Your task to perform on an android device: check out phone information Image 0: 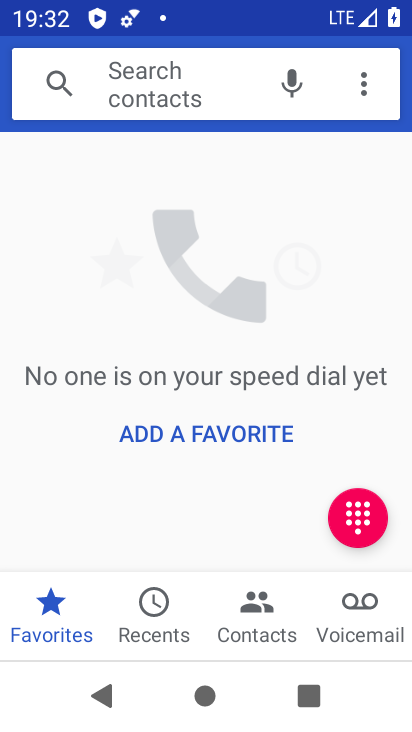
Step 0: press home button
Your task to perform on an android device: check out phone information Image 1: 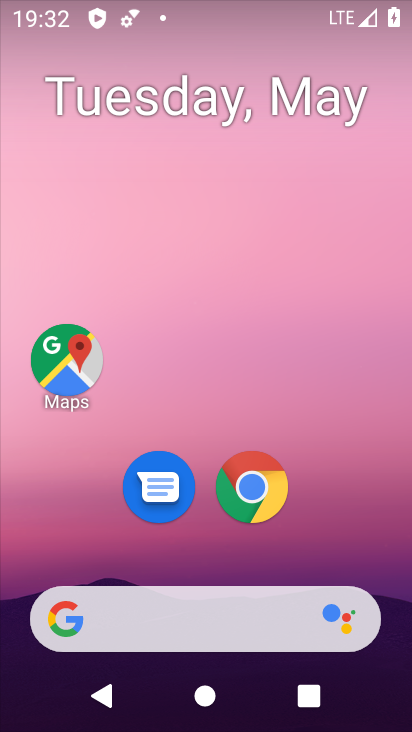
Step 1: drag from (341, 523) to (256, 113)
Your task to perform on an android device: check out phone information Image 2: 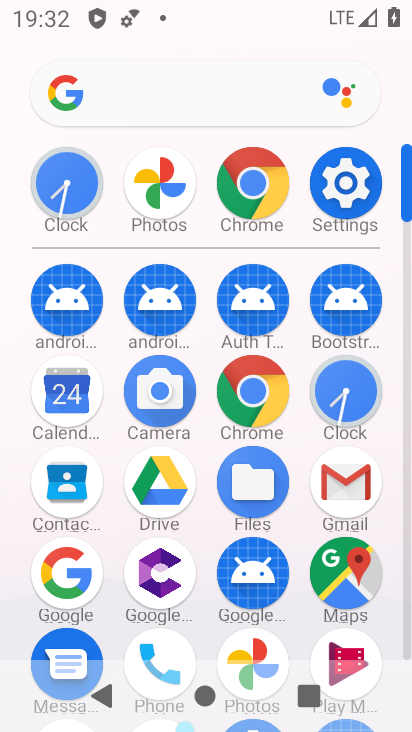
Step 2: click (338, 181)
Your task to perform on an android device: check out phone information Image 3: 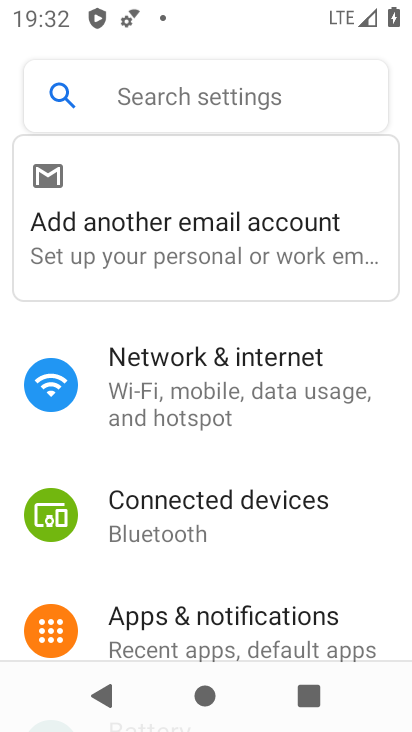
Step 3: drag from (265, 569) to (224, 155)
Your task to perform on an android device: check out phone information Image 4: 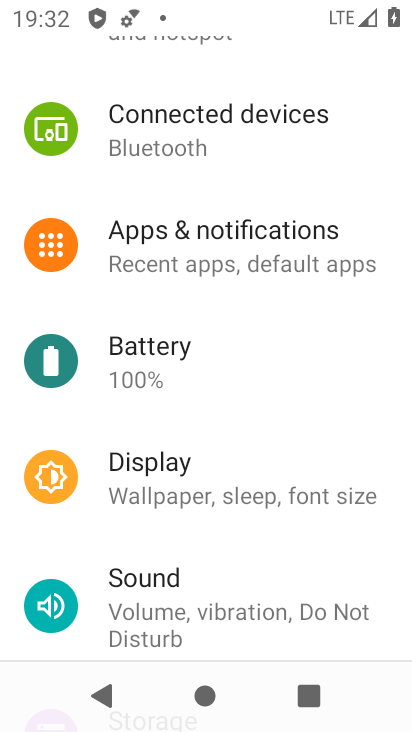
Step 4: drag from (229, 561) to (160, 215)
Your task to perform on an android device: check out phone information Image 5: 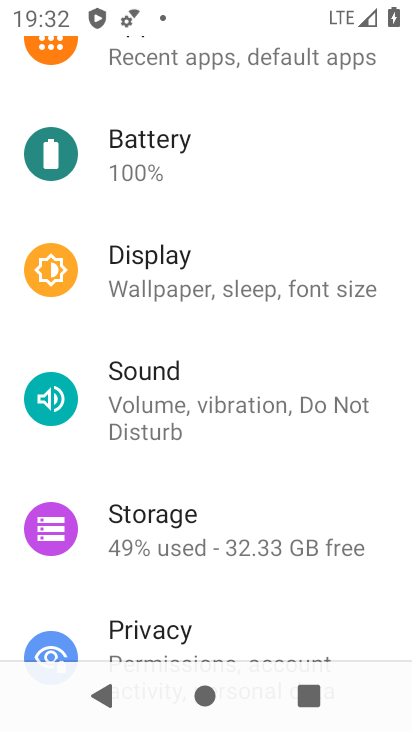
Step 5: drag from (230, 589) to (174, 230)
Your task to perform on an android device: check out phone information Image 6: 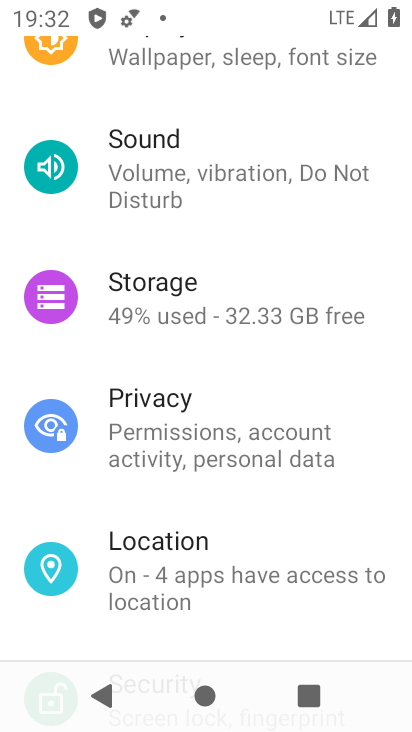
Step 6: drag from (212, 485) to (182, 208)
Your task to perform on an android device: check out phone information Image 7: 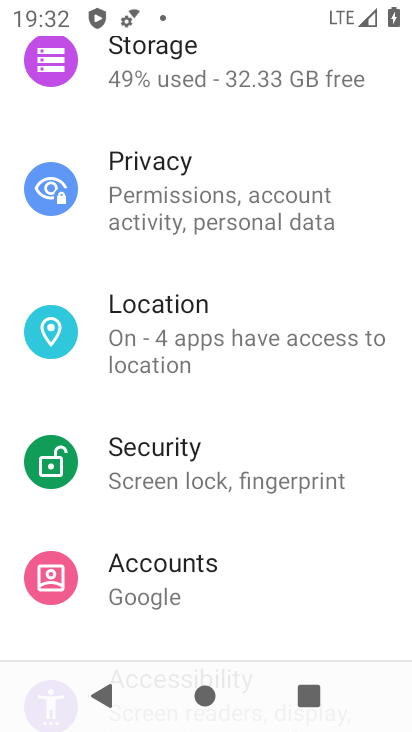
Step 7: drag from (205, 539) to (188, 237)
Your task to perform on an android device: check out phone information Image 8: 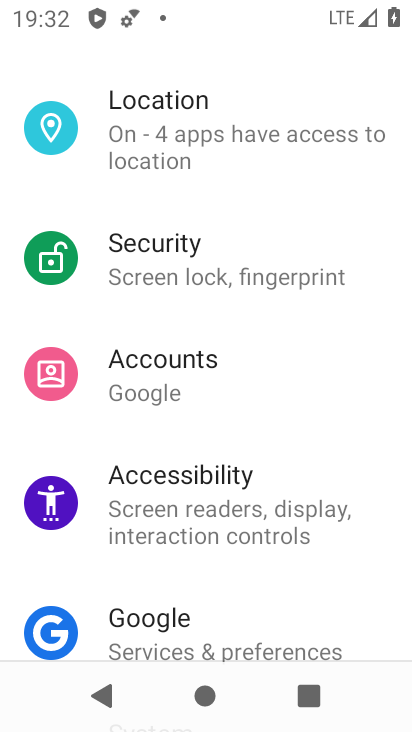
Step 8: drag from (214, 562) to (177, 239)
Your task to perform on an android device: check out phone information Image 9: 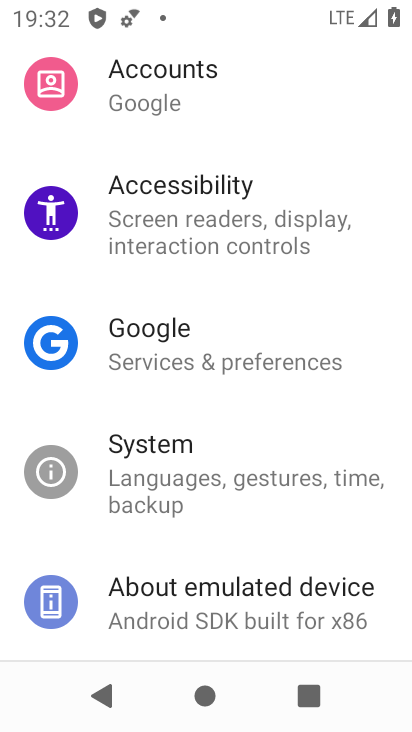
Step 9: drag from (217, 502) to (194, 94)
Your task to perform on an android device: check out phone information Image 10: 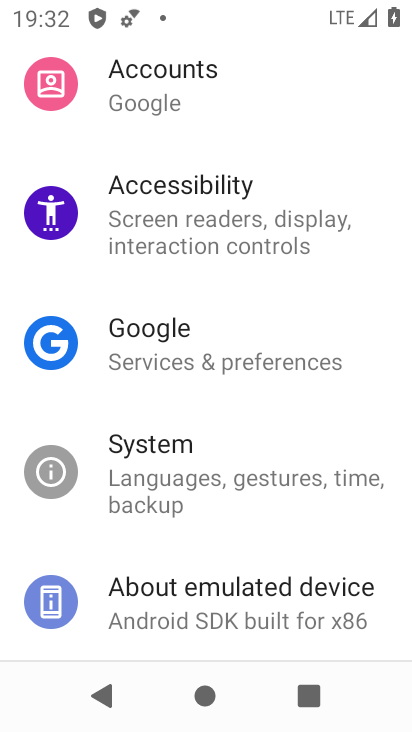
Step 10: click (202, 587)
Your task to perform on an android device: check out phone information Image 11: 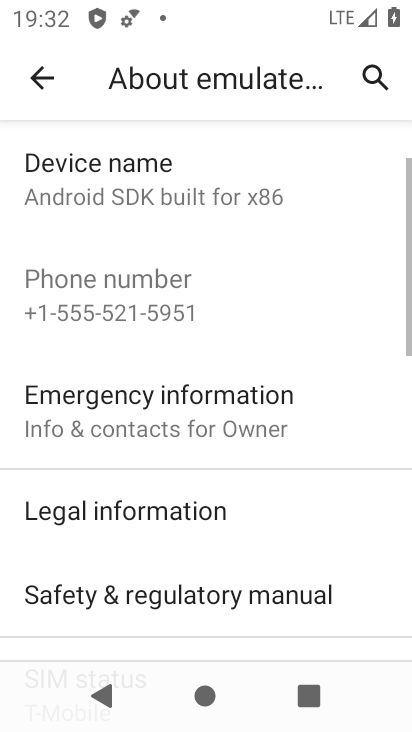
Step 11: task complete